Your task to perform on an android device: toggle javascript in the chrome app Image 0: 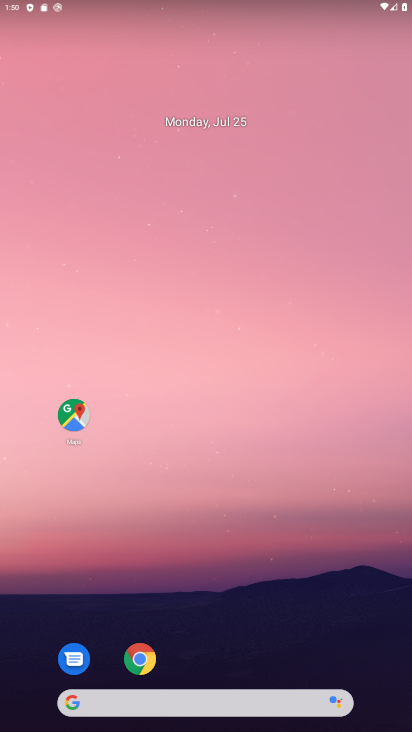
Step 0: drag from (209, 578) to (206, 77)
Your task to perform on an android device: toggle javascript in the chrome app Image 1: 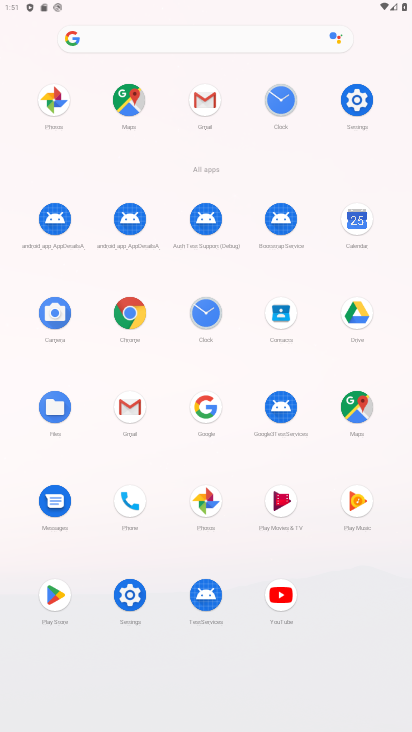
Step 1: click (129, 323)
Your task to perform on an android device: toggle javascript in the chrome app Image 2: 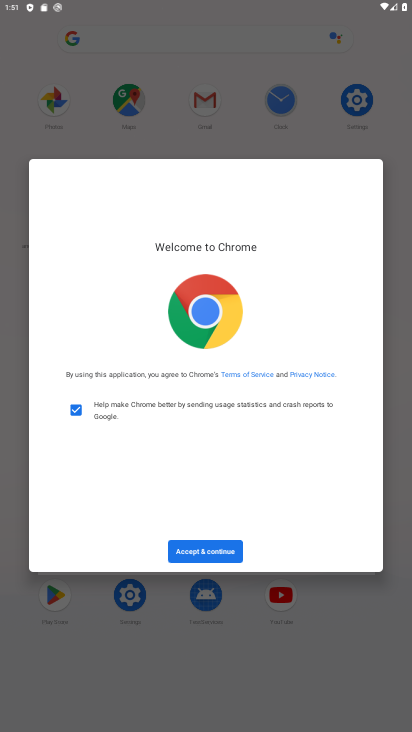
Step 2: click (214, 551)
Your task to perform on an android device: toggle javascript in the chrome app Image 3: 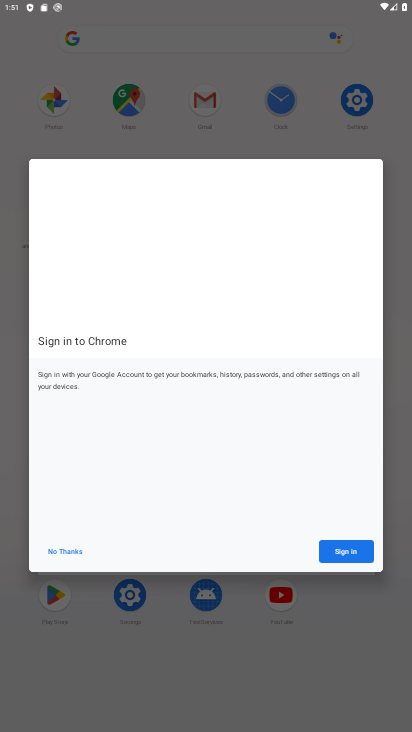
Step 3: click (354, 548)
Your task to perform on an android device: toggle javascript in the chrome app Image 4: 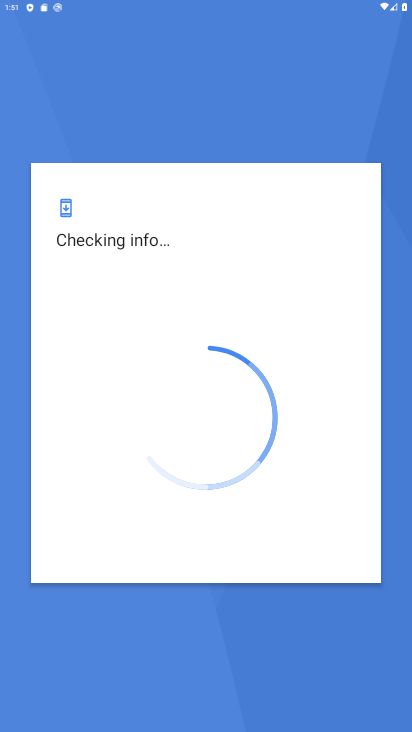
Step 4: click (350, 554)
Your task to perform on an android device: toggle javascript in the chrome app Image 5: 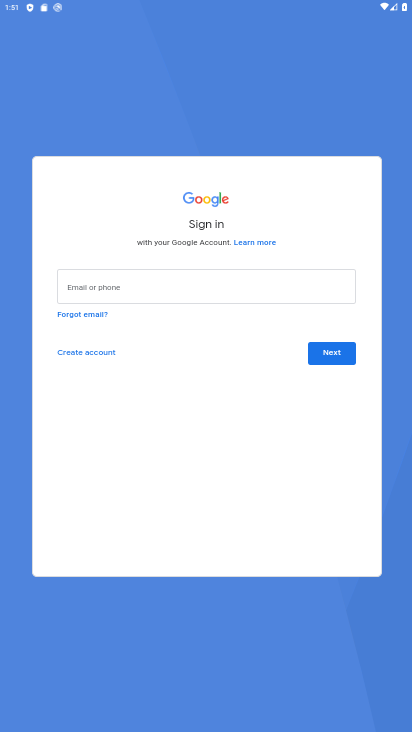
Step 5: press back button
Your task to perform on an android device: toggle javascript in the chrome app Image 6: 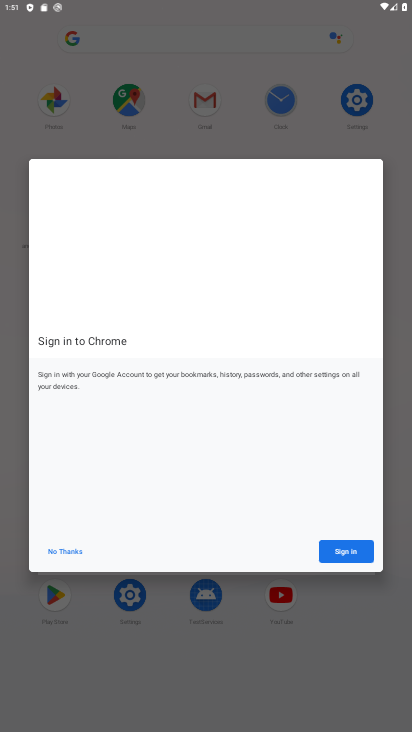
Step 6: click (61, 539)
Your task to perform on an android device: toggle javascript in the chrome app Image 7: 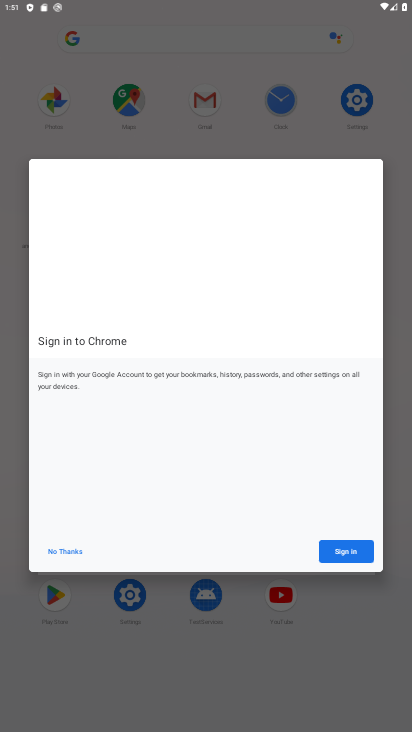
Step 7: click (76, 555)
Your task to perform on an android device: toggle javascript in the chrome app Image 8: 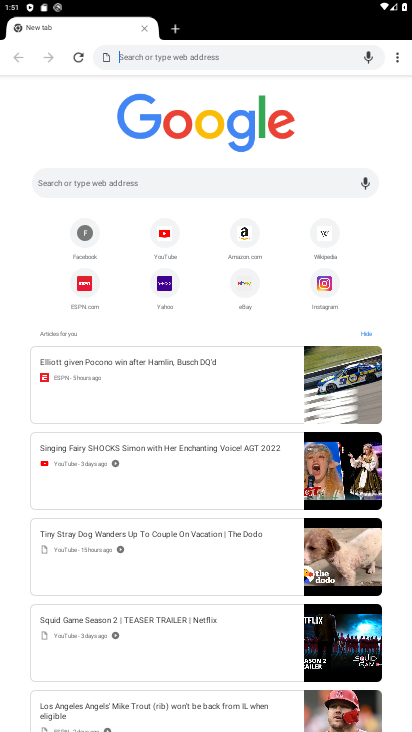
Step 8: click (395, 48)
Your task to perform on an android device: toggle javascript in the chrome app Image 9: 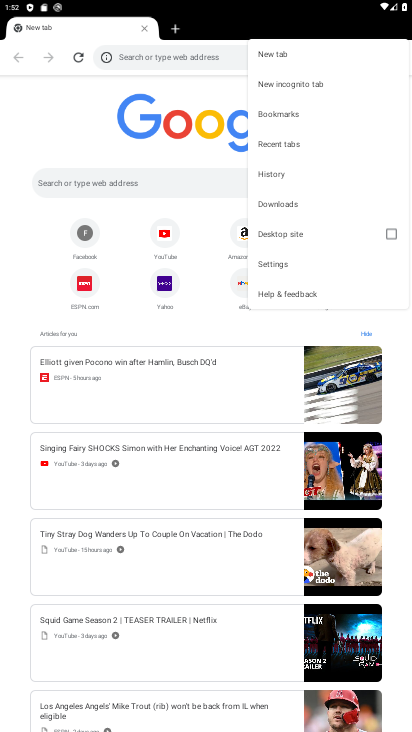
Step 9: click (277, 265)
Your task to perform on an android device: toggle javascript in the chrome app Image 10: 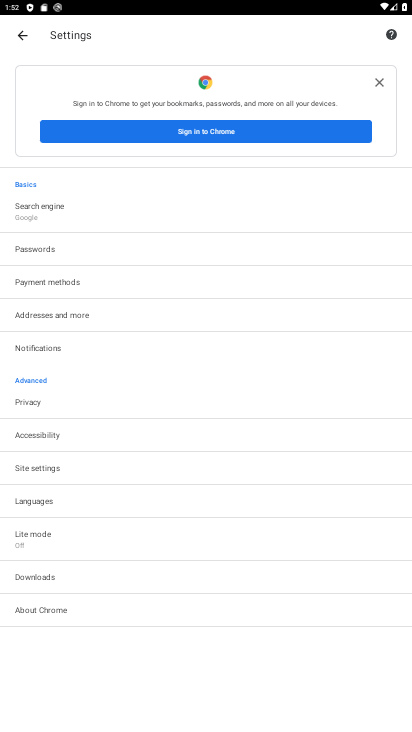
Step 10: click (49, 469)
Your task to perform on an android device: toggle javascript in the chrome app Image 11: 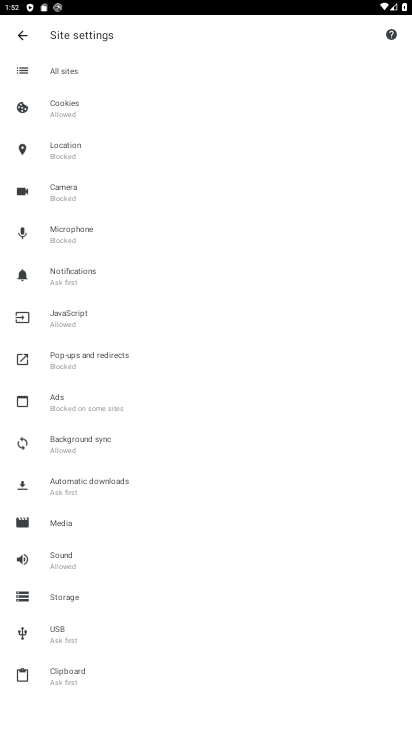
Step 11: click (77, 322)
Your task to perform on an android device: toggle javascript in the chrome app Image 12: 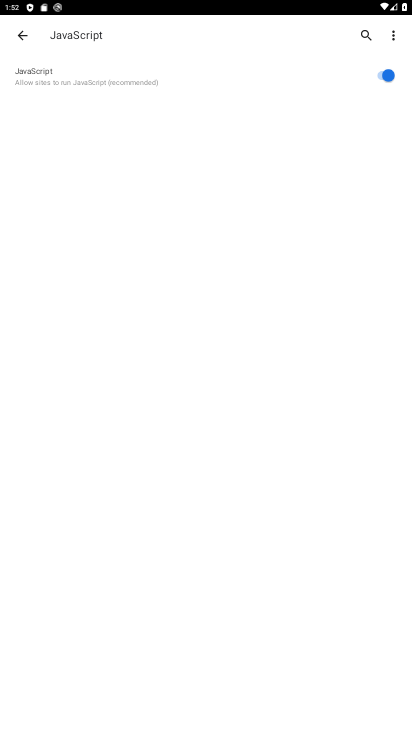
Step 12: click (365, 73)
Your task to perform on an android device: toggle javascript in the chrome app Image 13: 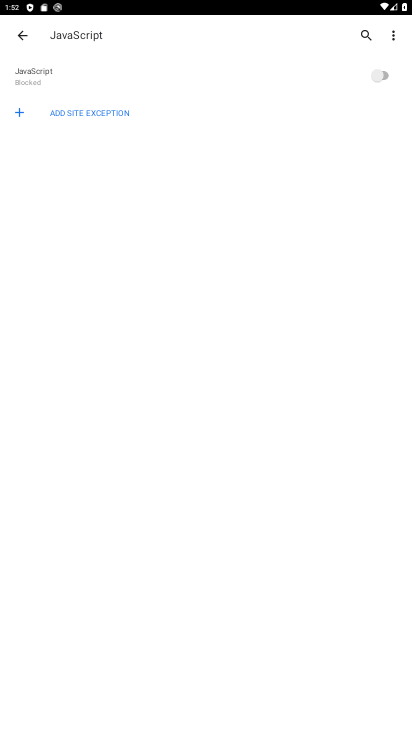
Step 13: task complete